Your task to perform on an android device: When is my next appointment? Image 0: 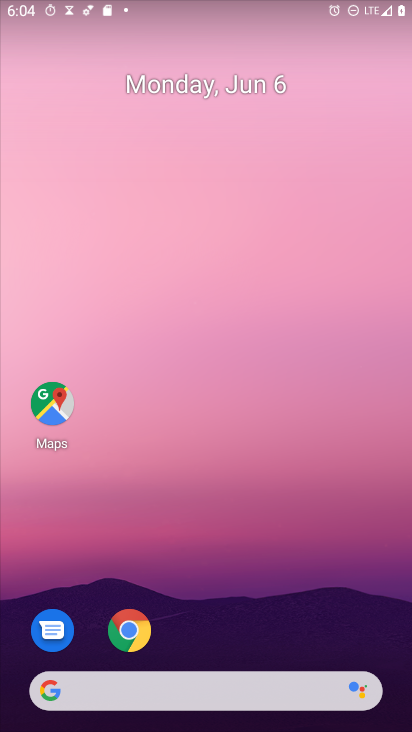
Step 0: drag from (302, 548) to (80, 7)
Your task to perform on an android device: When is my next appointment? Image 1: 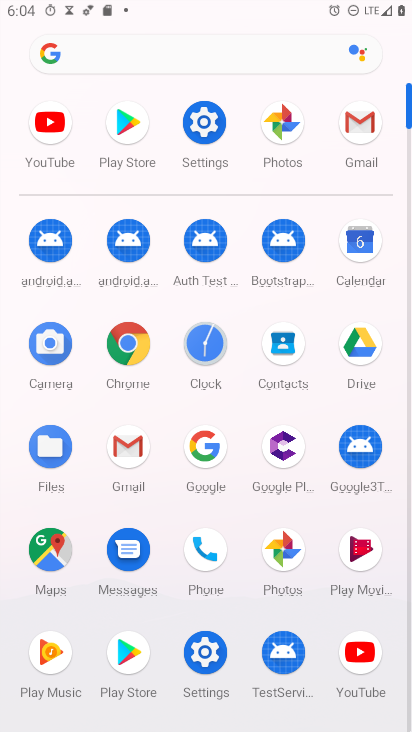
Step 1: click (378, 242)
Your task to perform on an android device: When is my next appointment? Image 2: 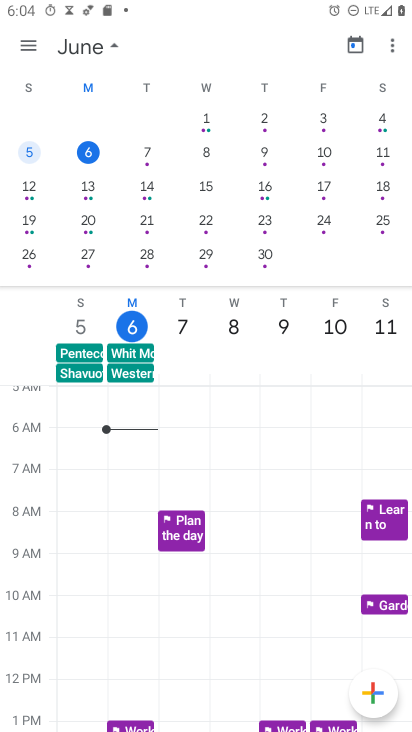
Step 2: task complete